Your task to perform on an android device: turn off picture-in-picture Image 0: 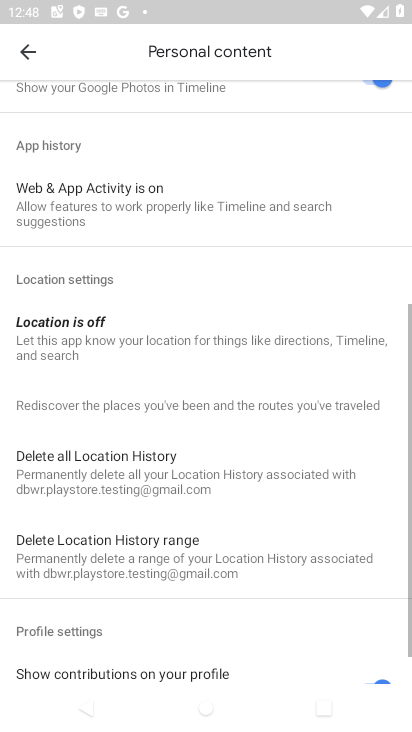
Step 0: click (179, 89)
Your task to perform on an android device: turn off picture-in-picture Image 1: 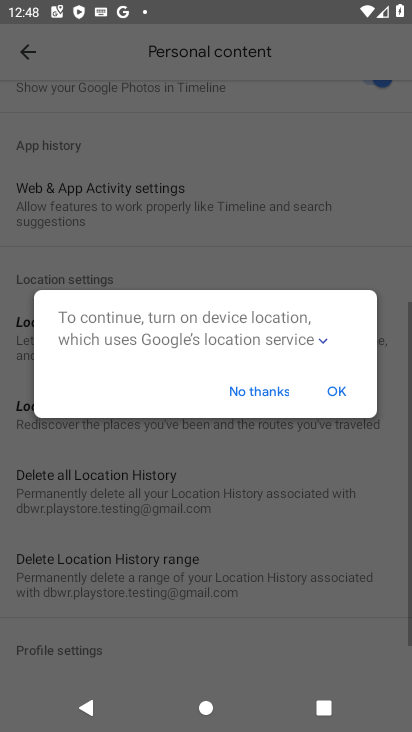
Step 1: press back button
Your task to perform on an android device: turn off picture-in-picture Image 2: 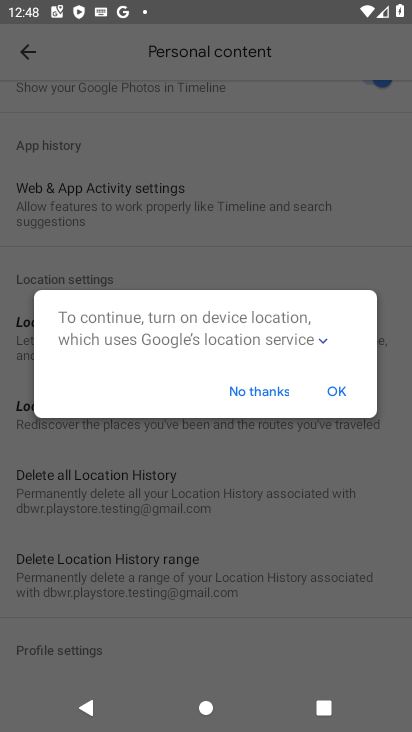
Step 2: press home button
Your task to perform on an android device: turn off picture-in-picture Image 3: 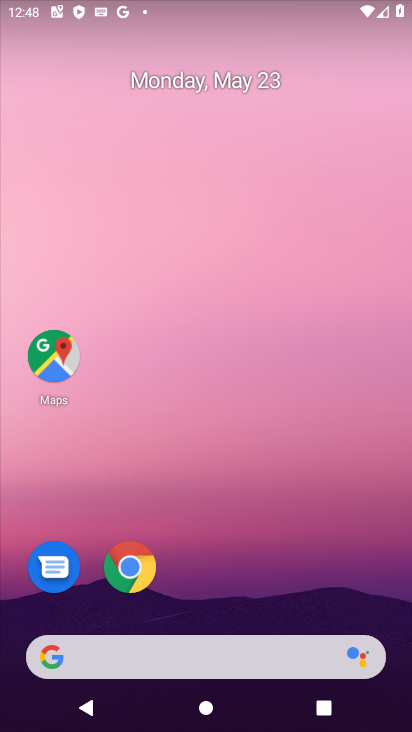
Step 3: click (134, 581)
Your task to perform on an android device: turn off picture-in-picture Image 4: 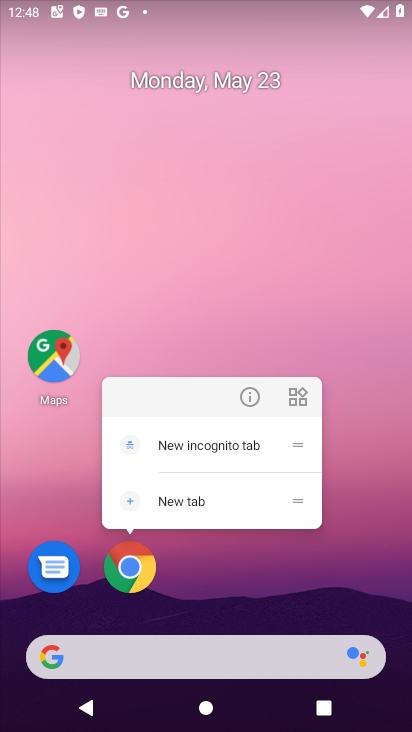
Step 4: click (253, 405)
Your task to perform on an android device: turn off picture-in-picture Image 5: 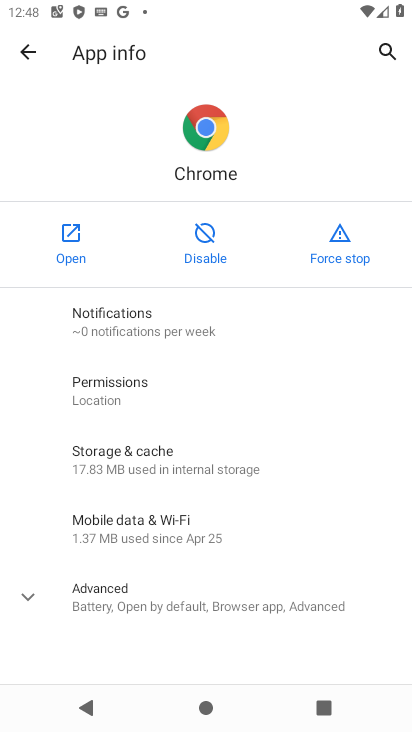
Step 5: click (264, 605)
Your task to perform on an android device: turn off picture-in-picture Image 6: 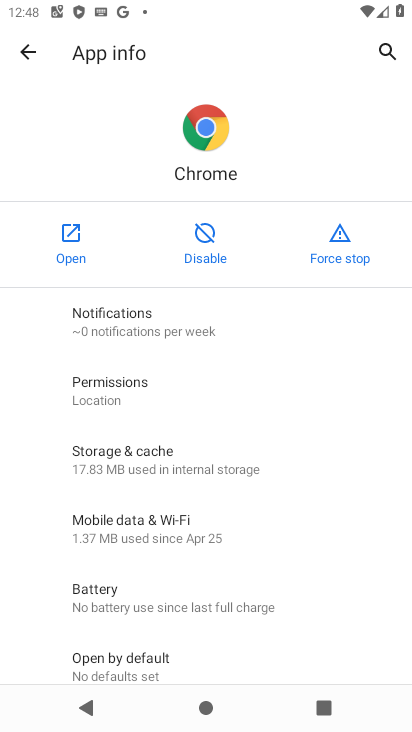
Step 6: drag from (287, 655) to (214, 98)
Your task to perform on an android device: turn off picture-in-picture Image 7: 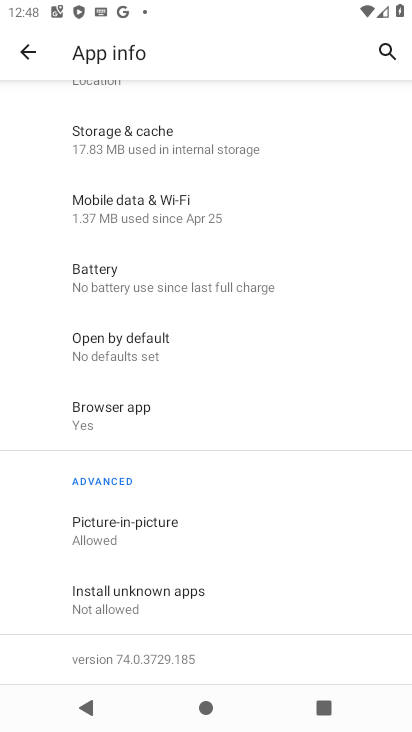
Step 7: click (211, 525)
Your task to perform on an android device: turn off picture-in-picture Image 8: 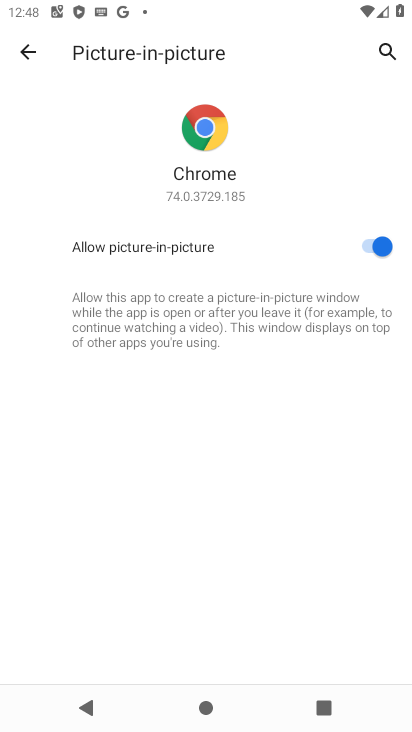
Step 8: click (372, 244)
Your task to perform on an android device: turn off picture-in-picture Image 9: 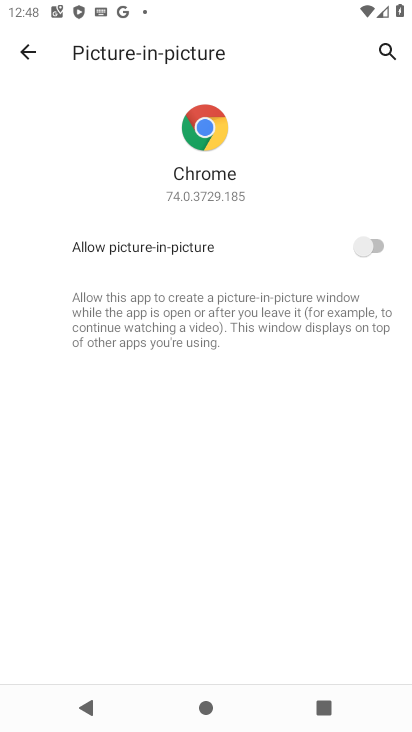
Step 9: task complete